Your task to perform on an android device: Open settings Image 0: 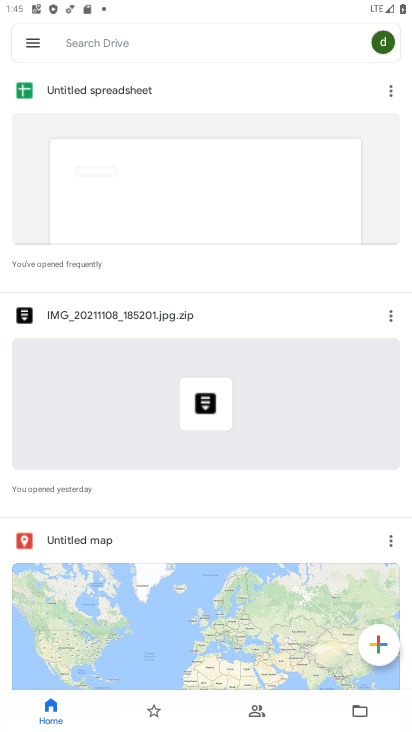
Step 0: press home button
Your task to perform on an android device: Open settings Image 1: 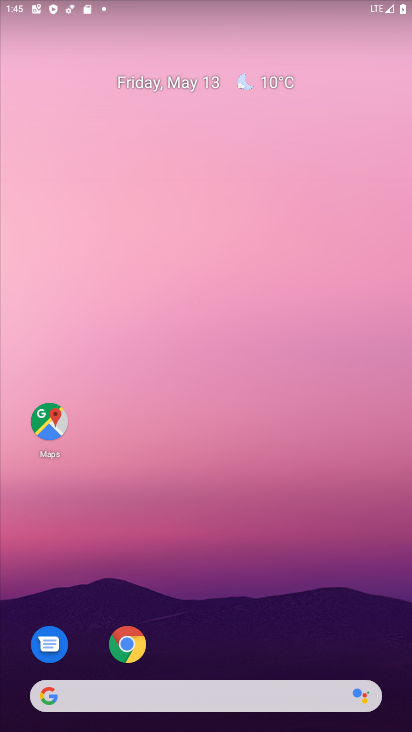
Step 1: drag from (254, 684) to (363, 6)
Your task to perform on an android device: Open settings Image 2: 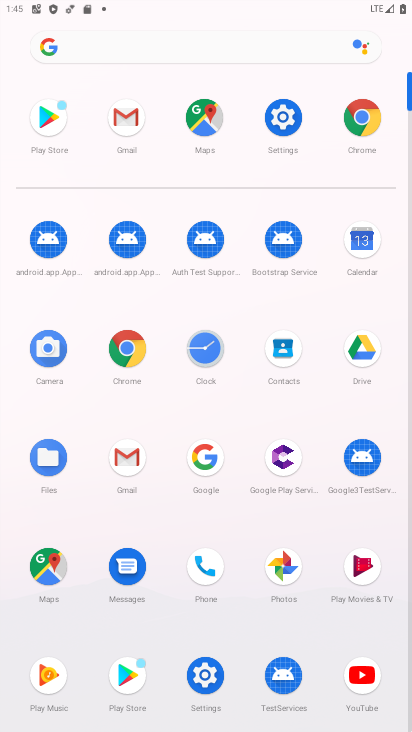
Step 2: click (279, 126)
Your task to perform on an android device: Open settings Image 3: 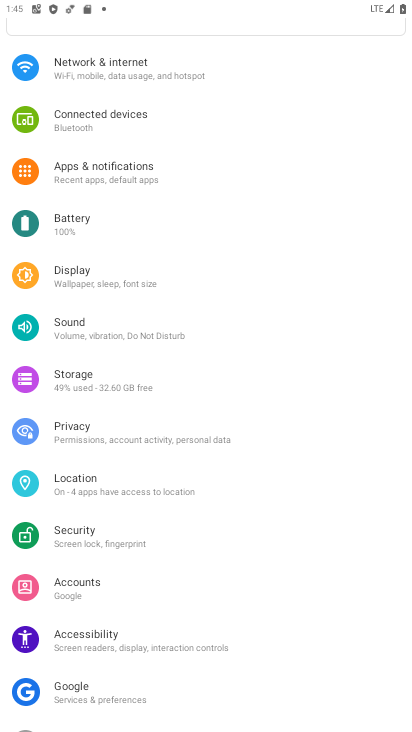
Step 3: task complete